Your task to perform on an android device: Go to notification settings Image 0: 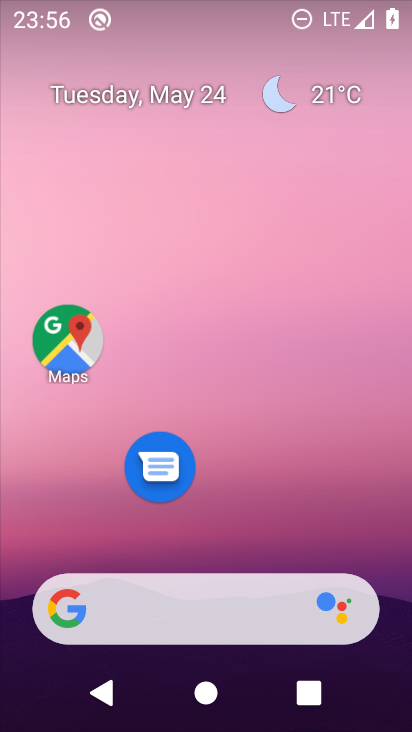
Step 0: drag from (240, 405) to (278, 135)
Your task to perform on an android device: Go to notification settings Image 1: 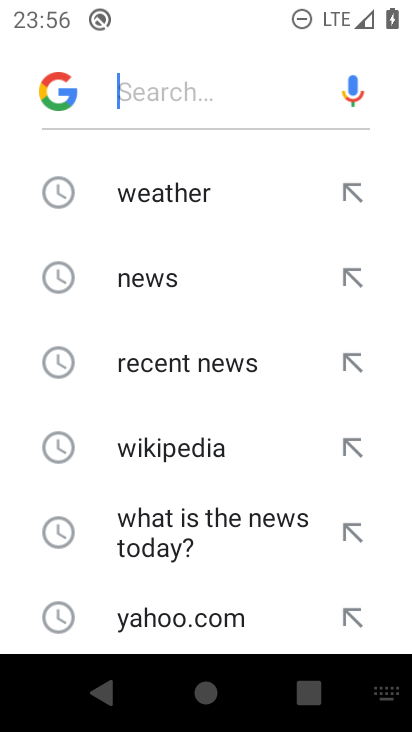
Step 1: drag from (200, 551) to (210, 263)
Your task to perform on an android device: Go to notification settings Image 2: 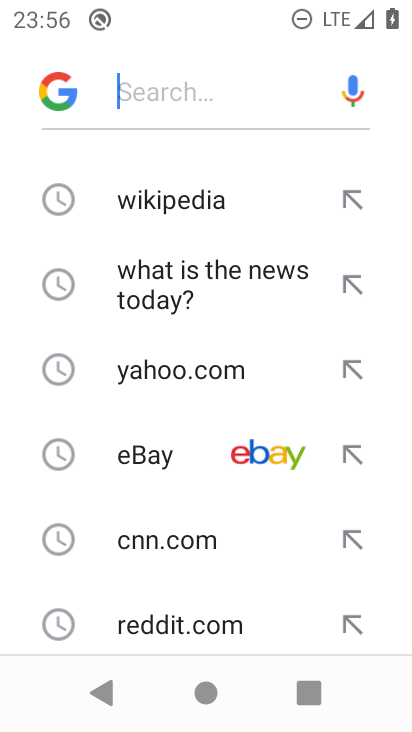
Step 2: drag from (232, 471) to (229, 216)
Your task to perform on an android device: Go to notification settings Image 3: 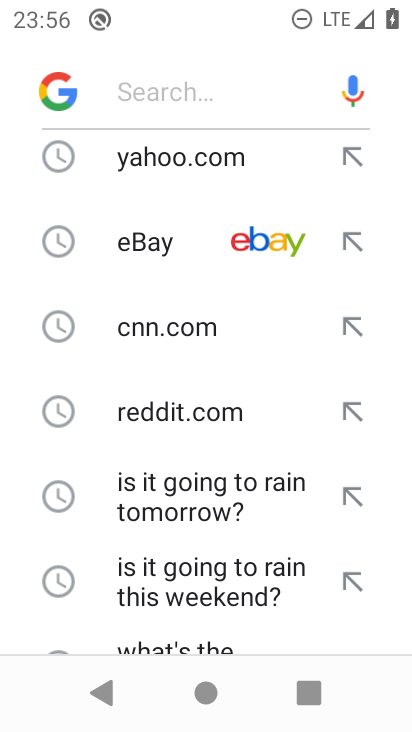
Step 3: drag from (143, 509) to (180, 316)
Your task to perform on an android device: Go to notification settings Image 4: 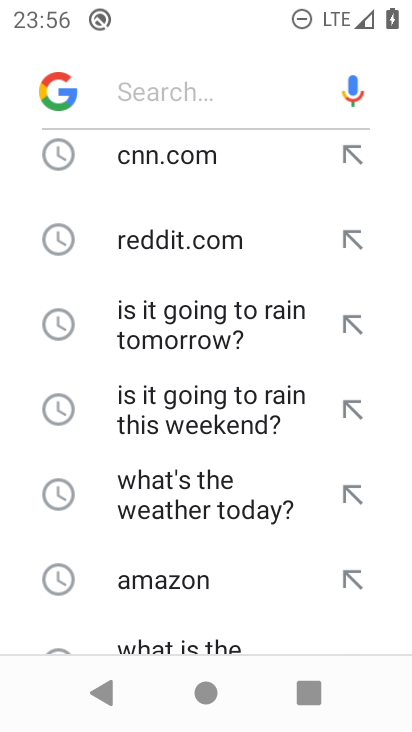
Step 4: drag from (186, 196) to (377, 637)
Your task to perform on an android device: Go to notification settings Image 5: 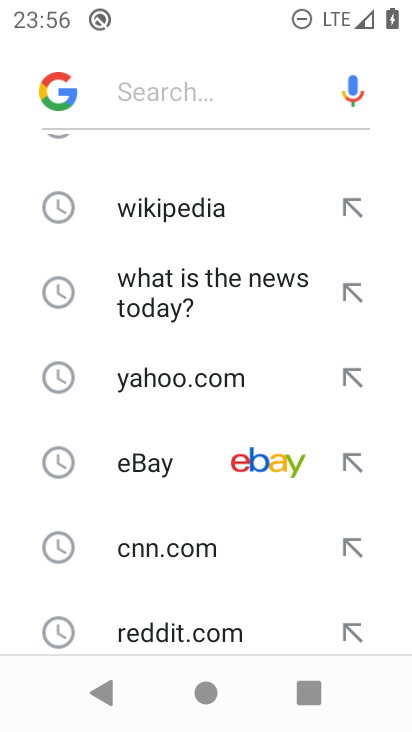
Step 5: drag from (183, 561) to (208, 325)
Your task to perform on an android device: Go to notification settings Image 6: 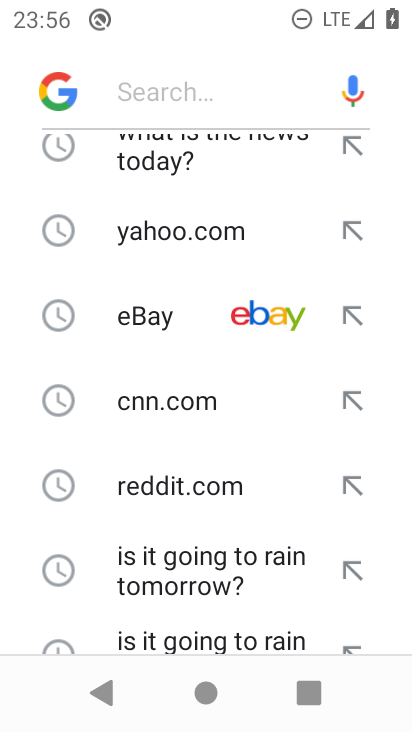
Step 6: drag from (217, 242) to (220, 585)
Your task to perform on an android device: Go to notification settings Image 7: 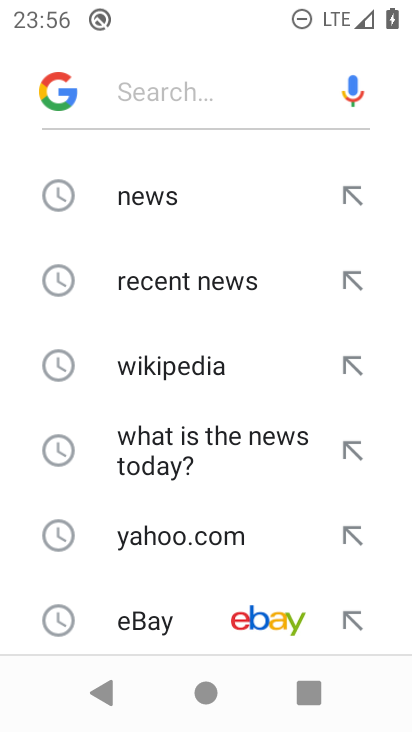
Step 7: drag from (194, 529) to (212, 370)
Your task to perform on an android device: Go to notification settings Image 8: 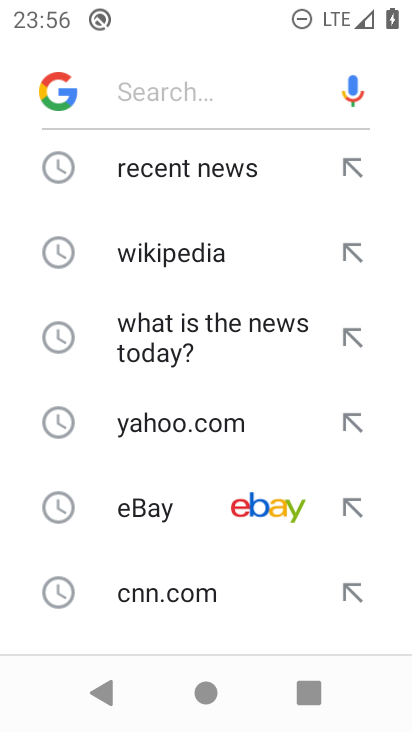
Step 8: drag from (179, 503) to (214, 346)
Your task to perform on an android device: Go to notification settings Image 9: 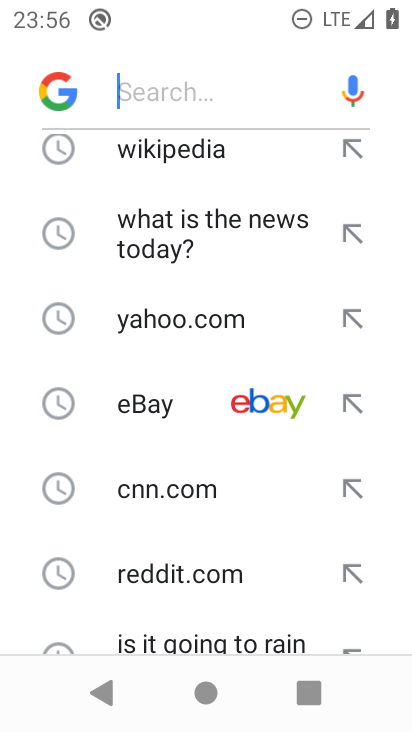
Step 9: drag from (173, 441) to (194, 255)
Your task to perform on an android device: Go to notification settings Image 10: 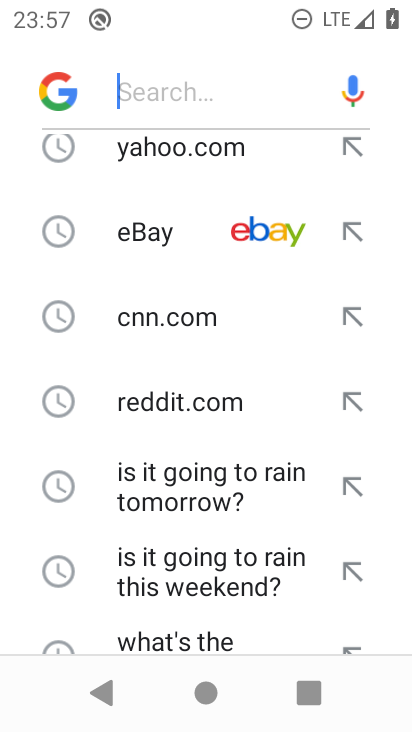
Step 10: drag from (245, 463) to (267, 729)
Your task to perform on an android device: Go to notification settings Image 11: 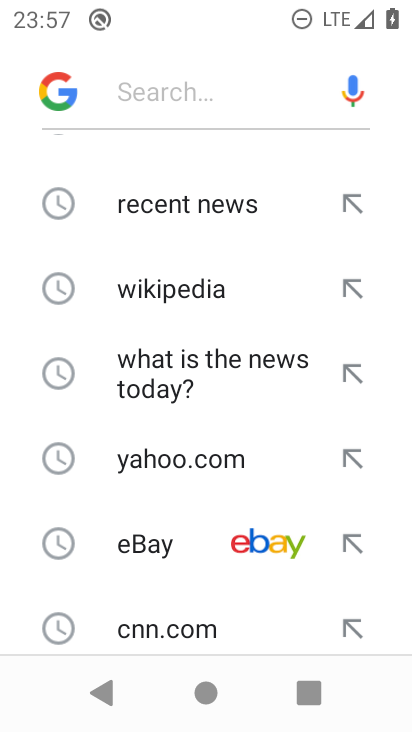
Step 11: press home button
Your task to perform on an android device: Go to notification settings Image 12: 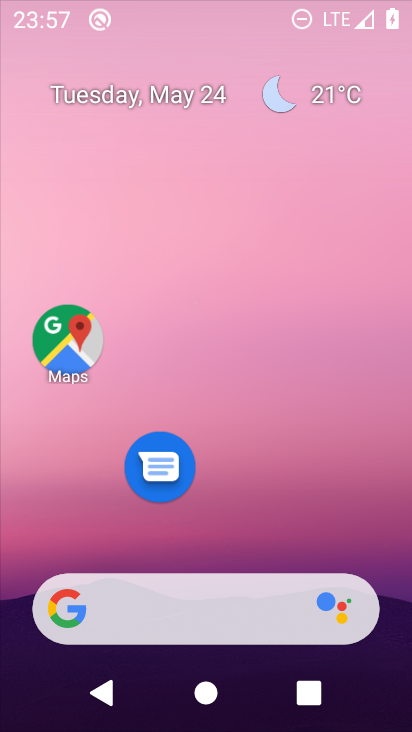
Step 12: drag from (226, 512) to (46, 4)
Your task to perform on an android device: Go to notification settings Image 13: 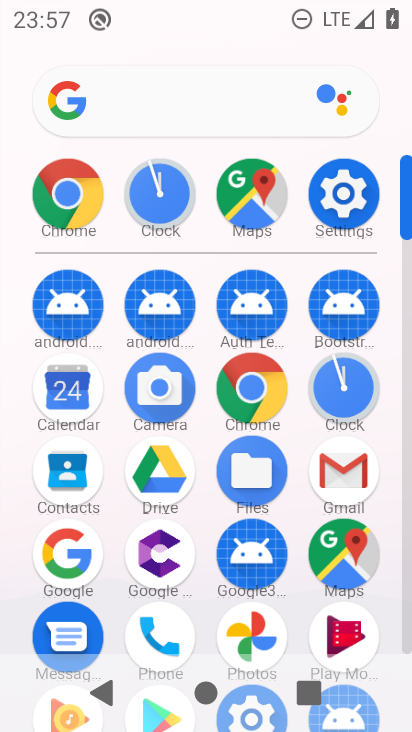
Step 13: click (340, 187)
Your task to perform on an android device: Go to notification settings Image 14: 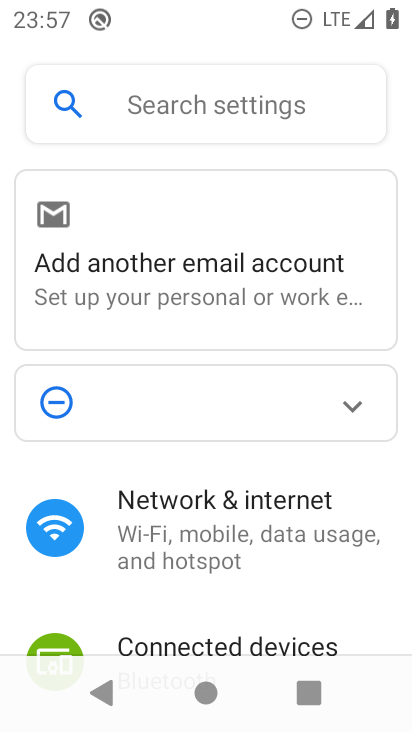
Step 14: drag from (200, 535) to (222, 291)
Your task to perform on an android device: Go to notification settings Image 15: 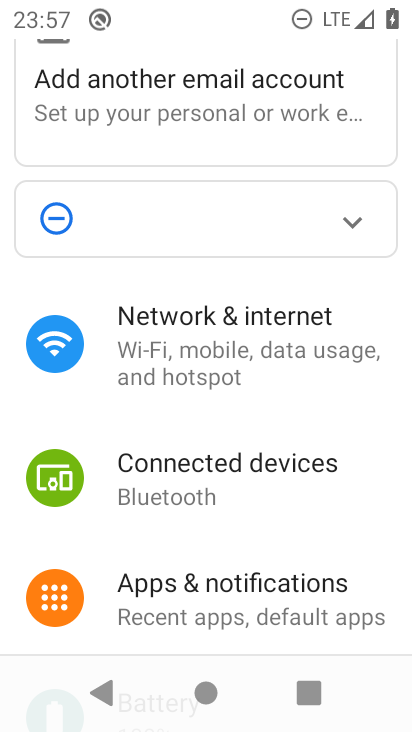
Step 15: click (225, 583)
Your task to perform on an android device: Go to notification settings Image 16: 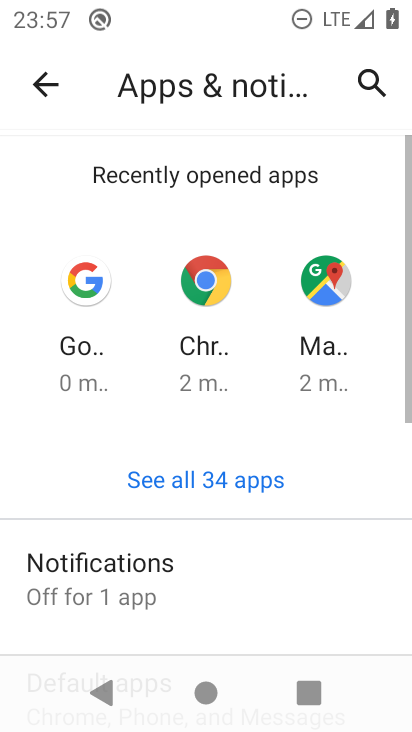
Step 16: drag from (206, 539) to (327, 95)
Your task to perform on an android device: Go to notification settings Image 17: 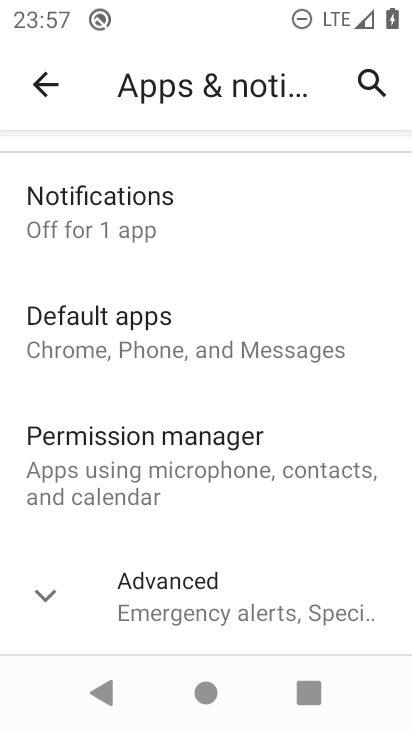
Step 17: click (167, 199)
Your task to perform on an android device: Go to notification settings Image 18: 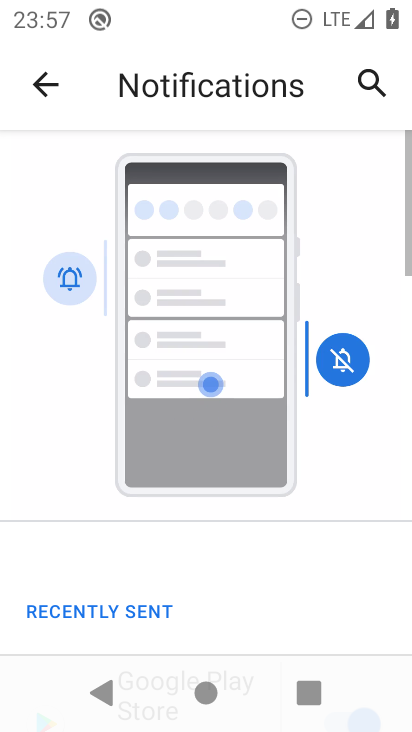
Step 18: drag from (205, 473) to (259, 121)
Your task to perform on an android device: Go to notification settings Image 19: 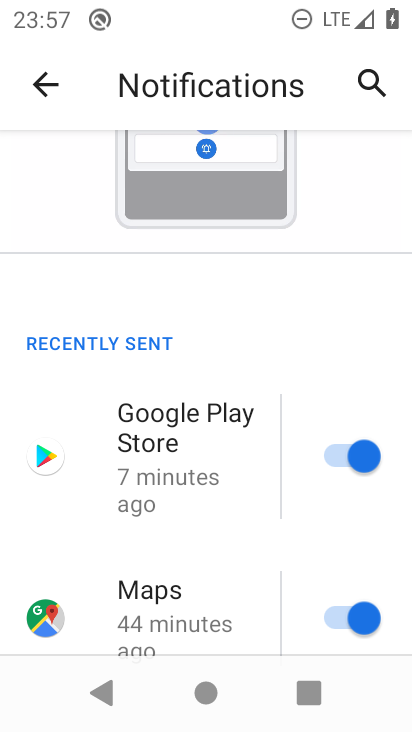
Step 19: drag from (236, 566) to (230, 229)
Your task to perform on an android device: Go to notification settings Image 20: 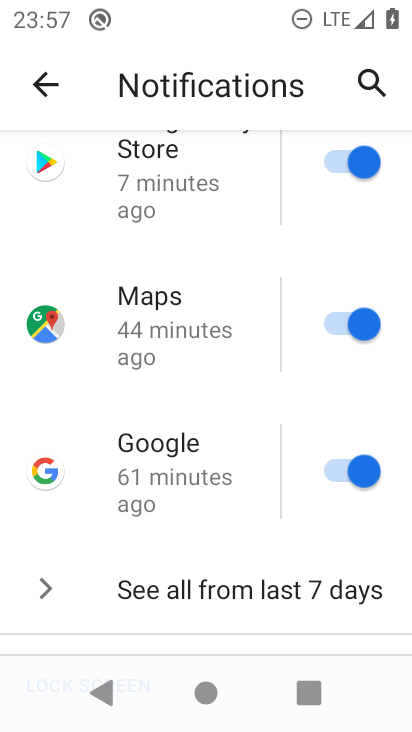
Step 20: drag from (240, 571) to (222, 233)
Your task to perform on an android device: Go to notification settings Image 21: 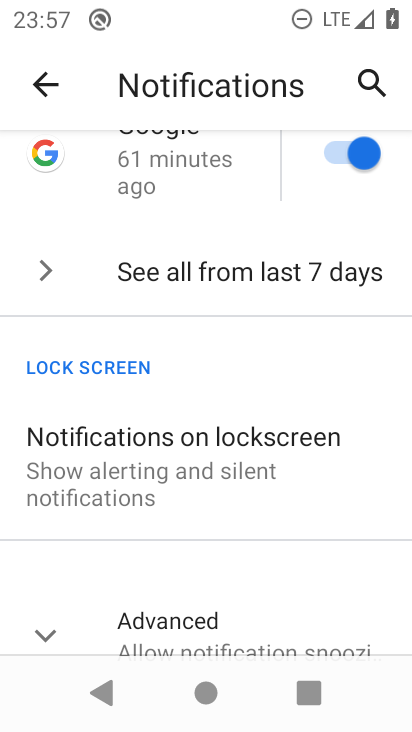
Step 21: drag from (203, 566) to (221, 307)
Your task to perform on an android device: Go to notification settings Image 22: 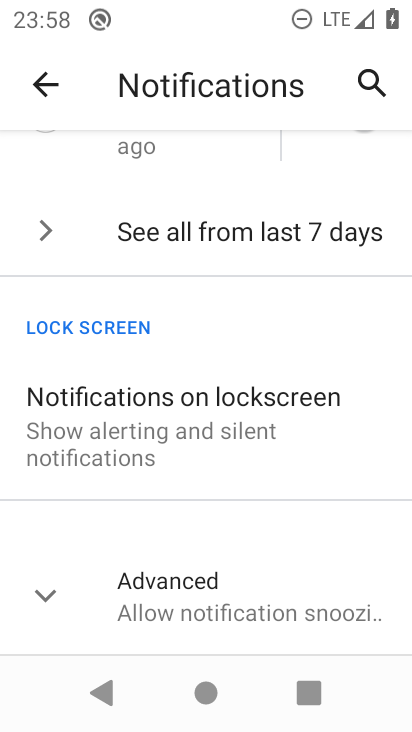
Step 22: drag from (198, 592) to (258, 169)
Your task to perform on an android device: Go to notification settings Image 23: 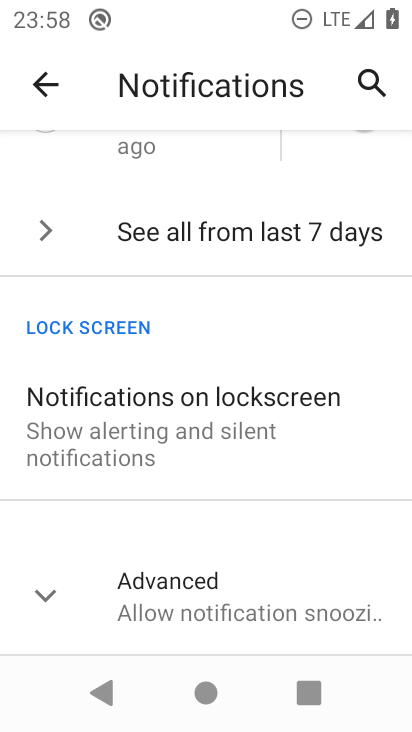
Step 23: click (181, 600)
Your task to perform on an android device: Go to notification settings Image 24: 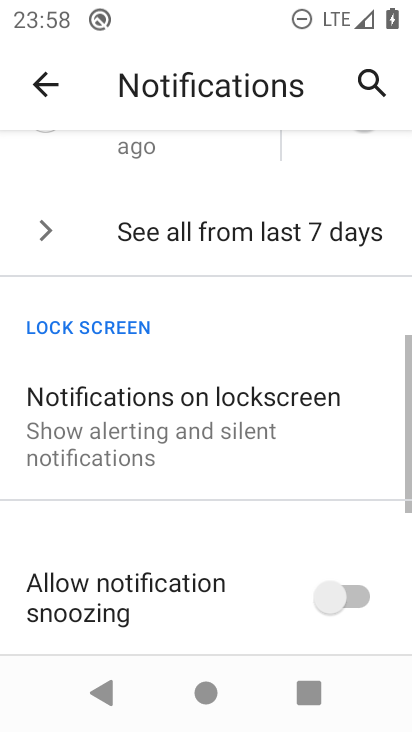
Step 24: drag from (178, 587) to (256, 727)
Your task to perform on an android device: Go to notification settings Image 25: 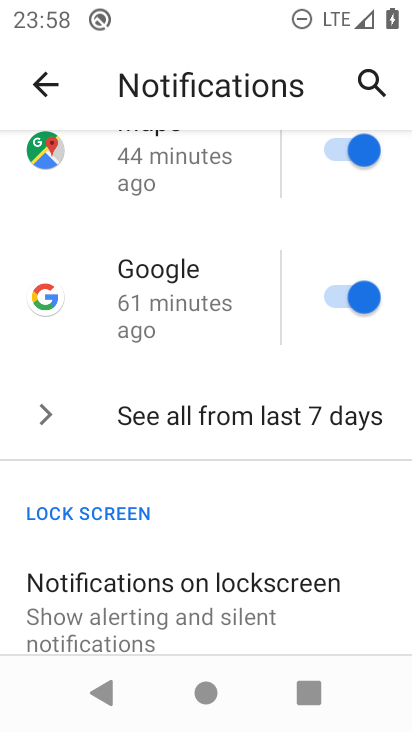
Step 25: drag from (231, 626) to (263, 204)
Your task to perform on an android device: Go to notification settings Image 26: 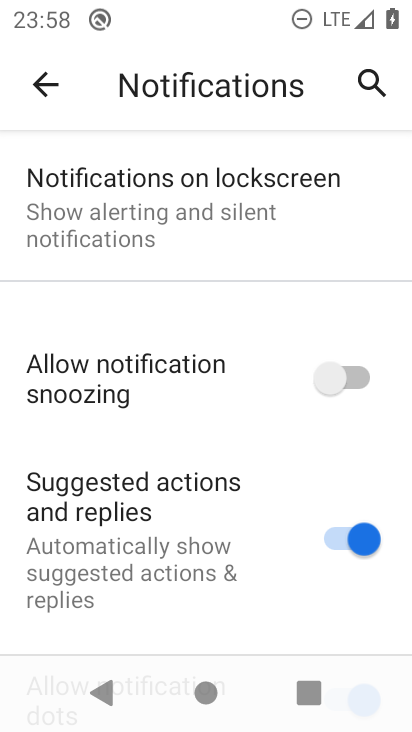
Step 26: drag from (260, 529) to (271, 262)
Your task to perform on an android device: Go to notification settings Image 27: 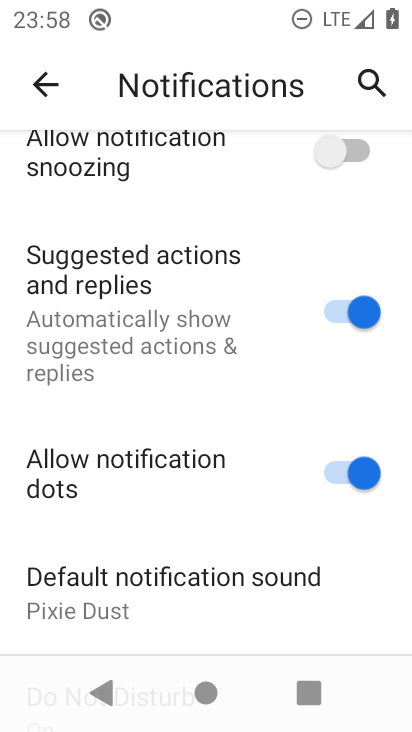
Step 27: drag from (209, 531) to (209, 353)
Your task to perform on an android device: Go to notification settings Image 28: 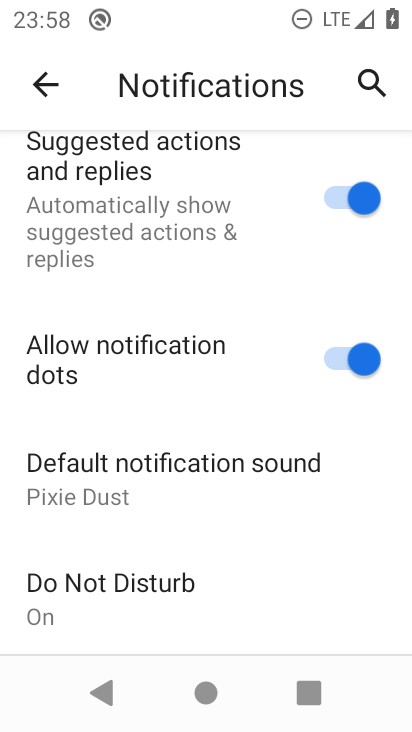
Step 28: drag from (249, 285) to (359, 728)
Your task to perform on an android device: Go to notification settings Image 29: 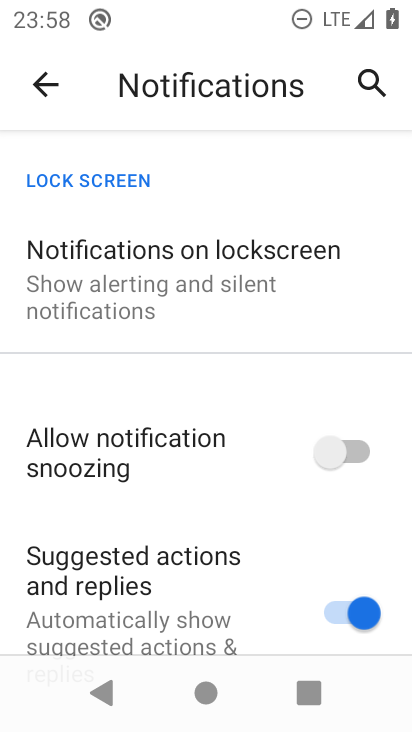
Step 29: drag from (248, 291) to (284, 295)
Your task to perform on an android device: Go to notification settings Image 30: 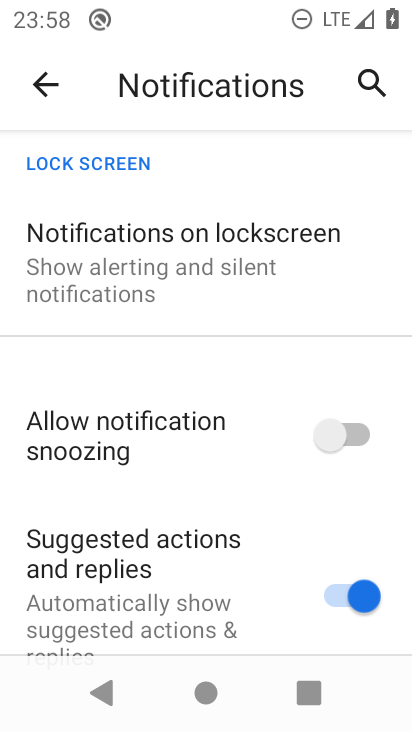
Step 30: click (329, 447)
Your task to perform on an android device: Go to notification settings Image 31: 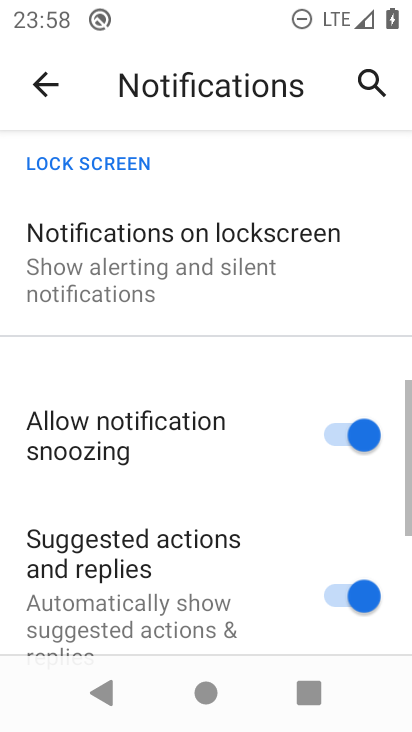
Step 31: task complete